Your task to perform on an android device: turn on notifications settings in the gmail app Image 0: 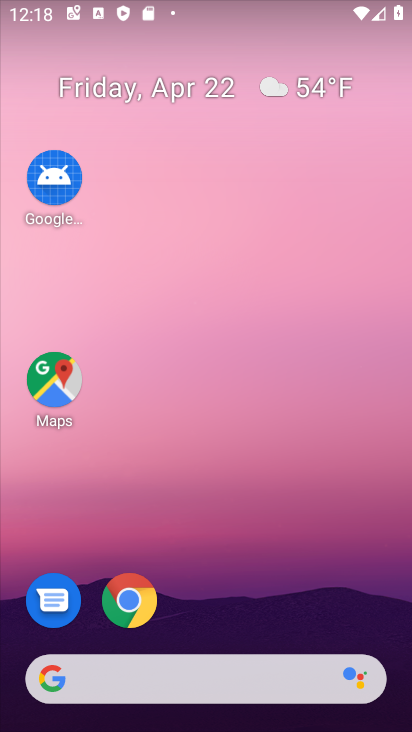
Step 0: drag from (227, 589) to (225, 87)
Your task to perform on an android device: turn on notifications settings in the gmail app Image 1: 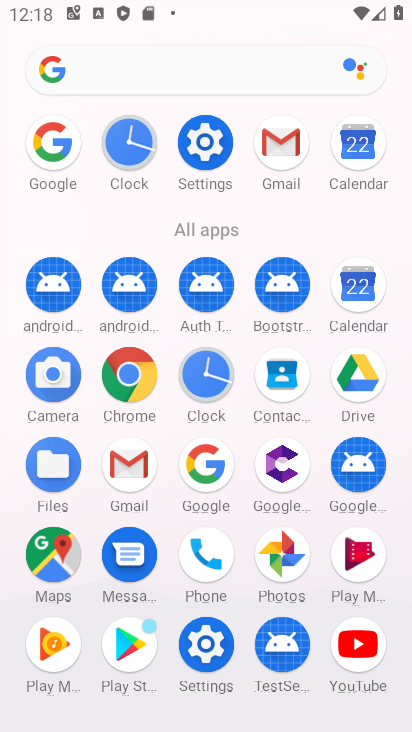
Step 1: click (279, 145)
Your task to perform on an android device: turn on notifications settings in the gmail app Image 2: 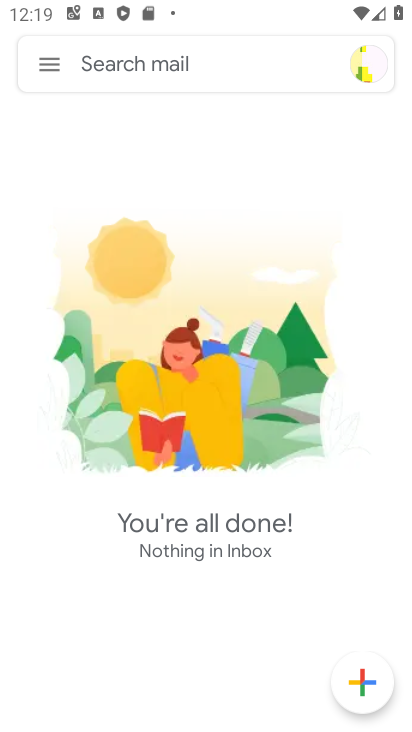
Step 2: click (50, 63)
Your task to perform on an android device: turn on notifications settings in the gmail app Image 3: 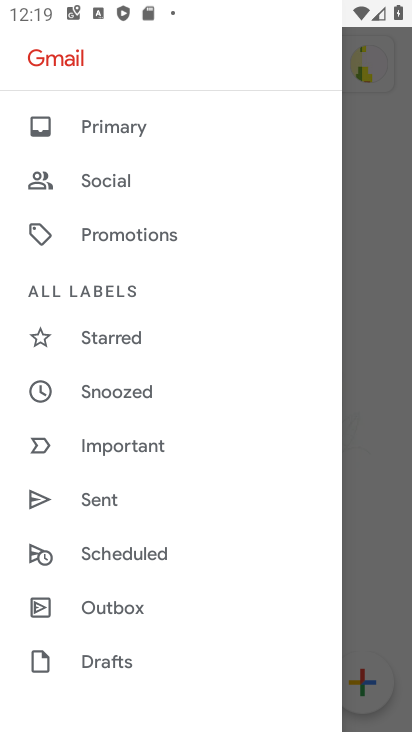
Step 3: drag from (179, 642) to (162, 235)
Your task to perform on an android device: turn on notifications settings in the gmail app Image 4: 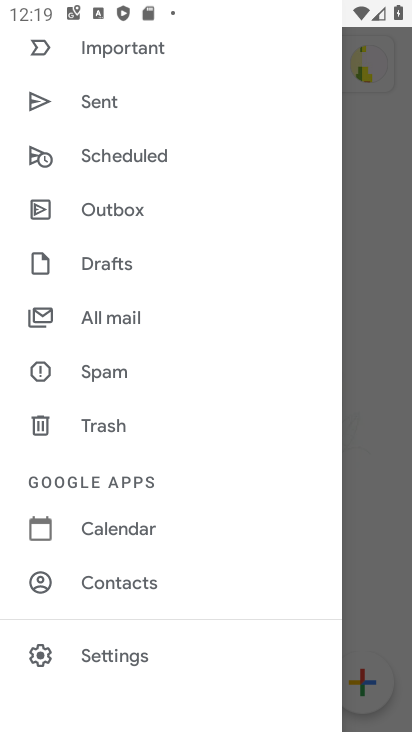
Step 4: click (127, 647)
Your task to perform on an android device: turn on notifications settings in the gmail app Image 5: 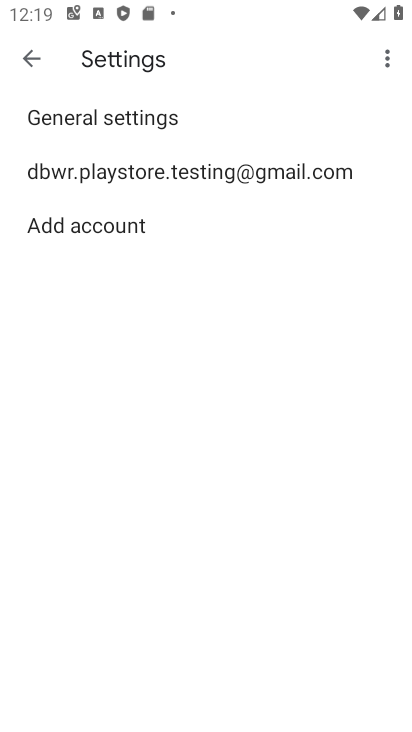
Step 5: click (153, 165)
Your task to perform on an android device: turn on notifications settings in the gmail app Image 6: 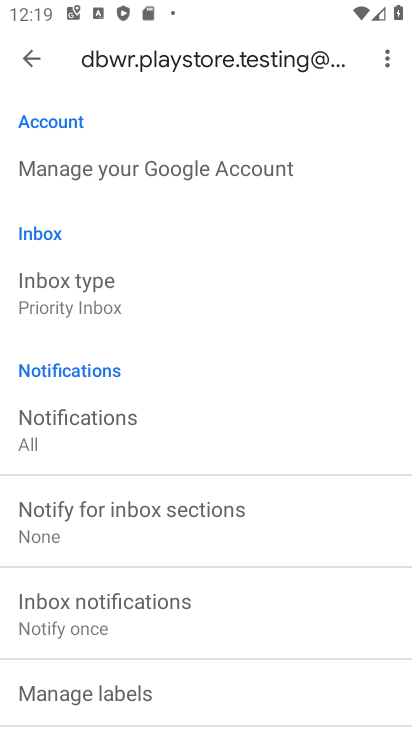
Step 6: drag from (104, 492) to (128, 297)
Your task to perform on an android device: turn on notifications settings in the gmail app Image 7: 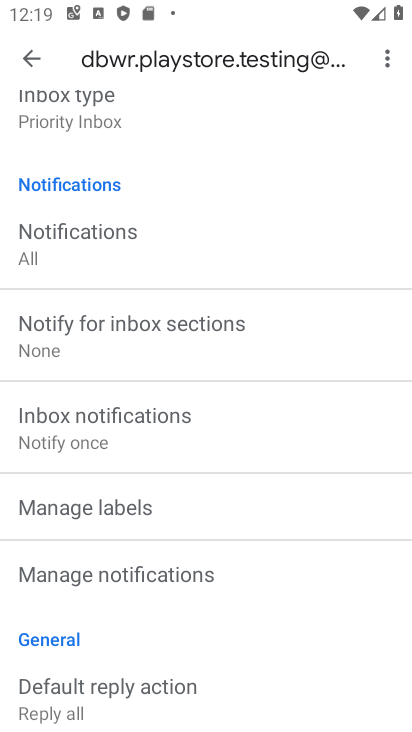
Step 7: click (107, 579)
Your task to perform on an android device: turn on notifications settings in the gmail app Image 8: 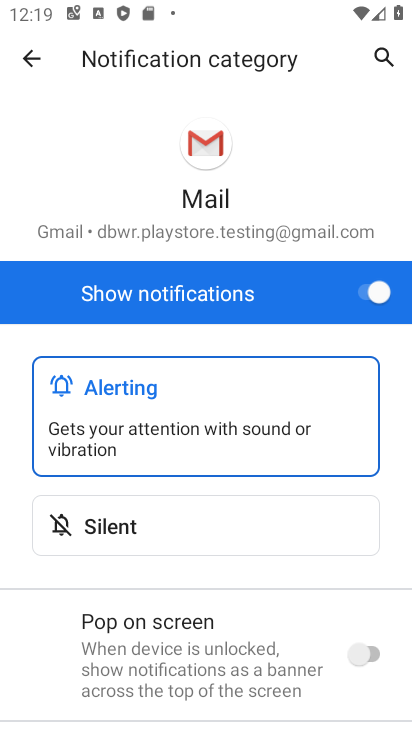
Step 8: task complete